Your task to perform on an android device: Go to accessibility settings Image 0: 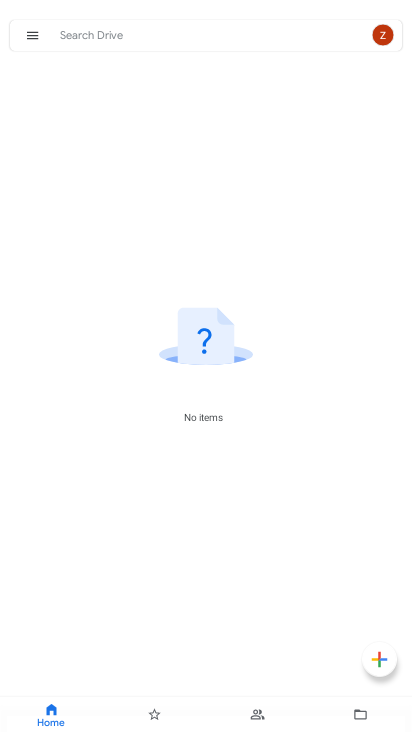
Step 0: press home button
Your task to perform on an android device: Go to accessibility settings Image 1: 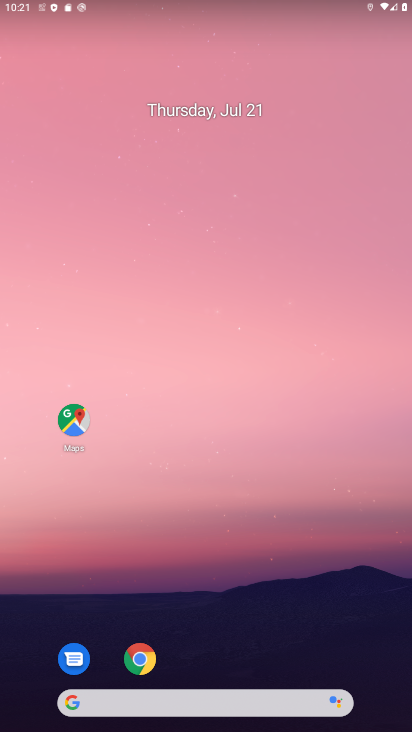
Step 1: drag from (198, 667) to (129, 40)
Your task to perform on an android device: Go to accessibility settings Image 2: 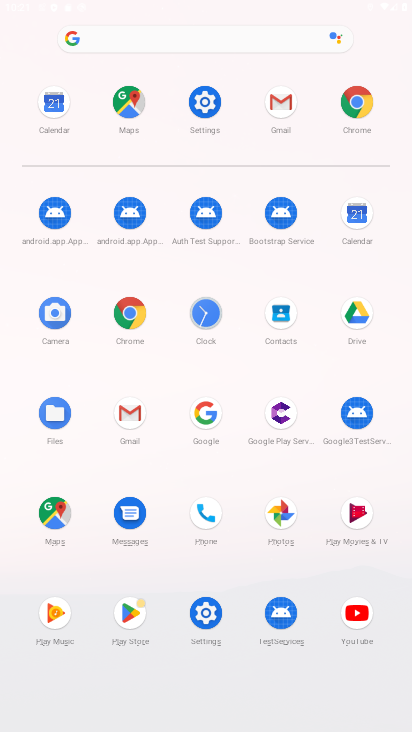
Step 2: click (208, 613)
Your task to perform on an android device: Go to accessibility settings Image 3: 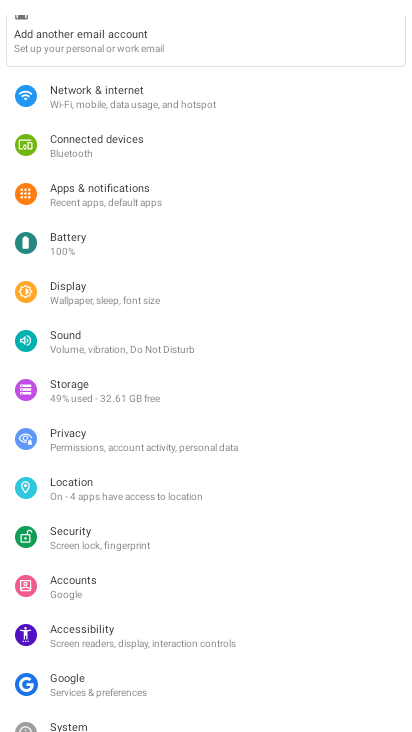
Step 3: click (92, 616)
Your task to perform on an android device: Go to accessibility settings Image 4: 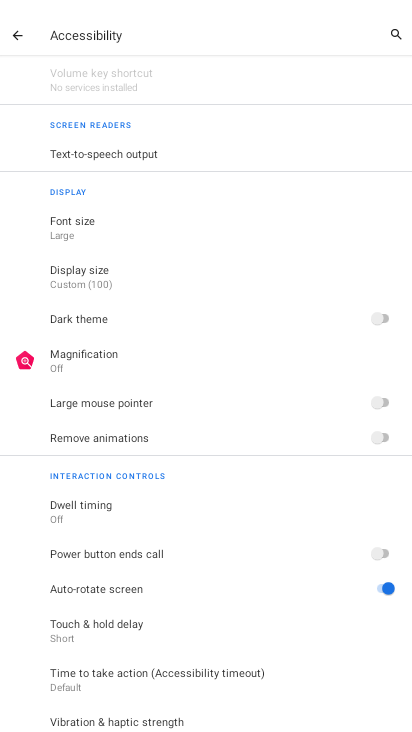
Step 4: task complete